Your task to perform on an android device: change your default location settings in chrome Image 0: 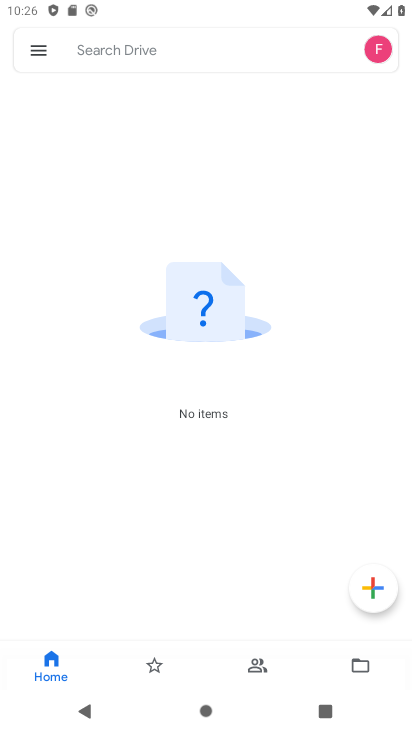
Step 0: press home button
Your task to perform on an android device: change your default location settings in chrome Image 1: 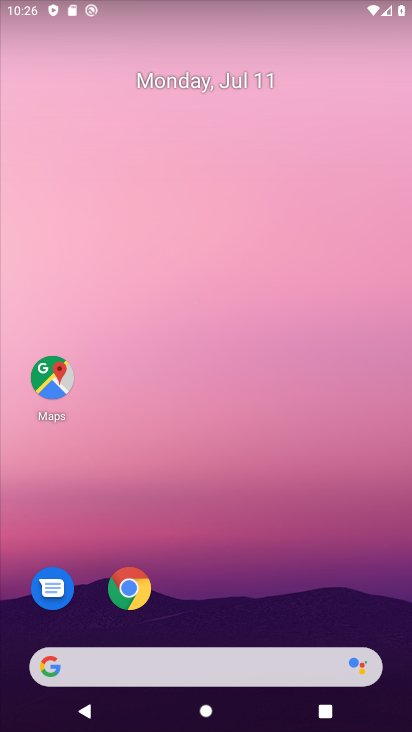
Step 1: click (118, 590)
Your task to perform on an android device: change your default location settings in chrome Image 2: 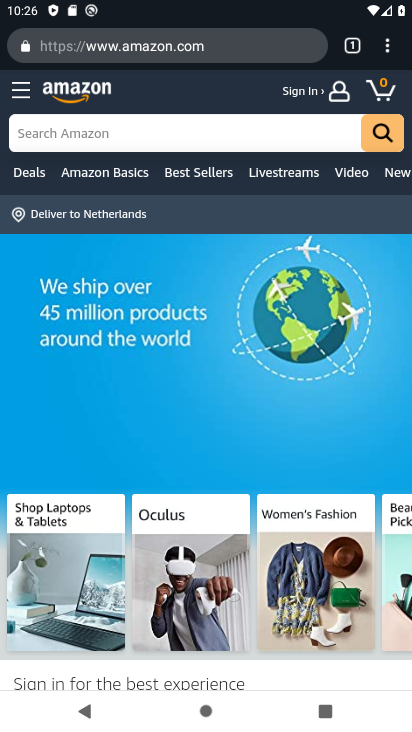
Step 2: click (390, 51)
Your task to perform on an android device: change your default location settings in chrome Image 3: 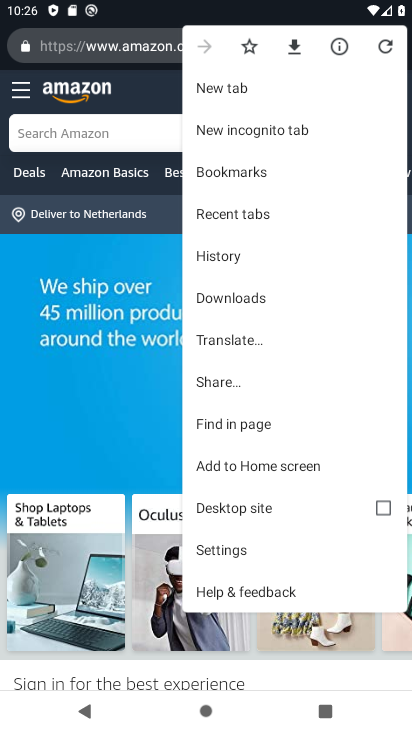
Step 3: click (241, 550)
Your task to perform on an android device: change your default location settings in chrome Image 4: 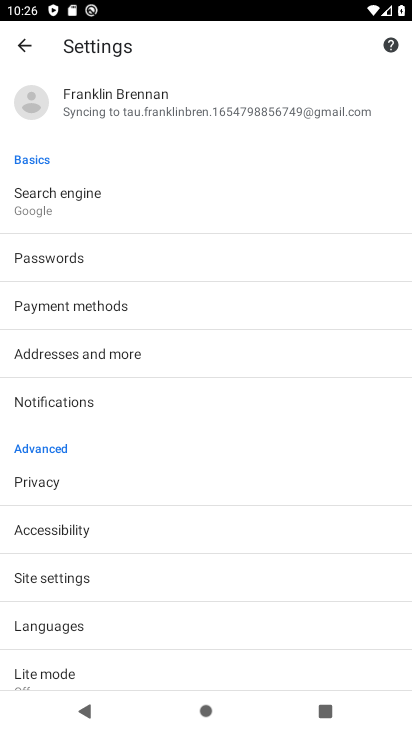
Step 4: click (72, 575)
Your task to perform on an android device: change your default location settings in chrome Image 5: 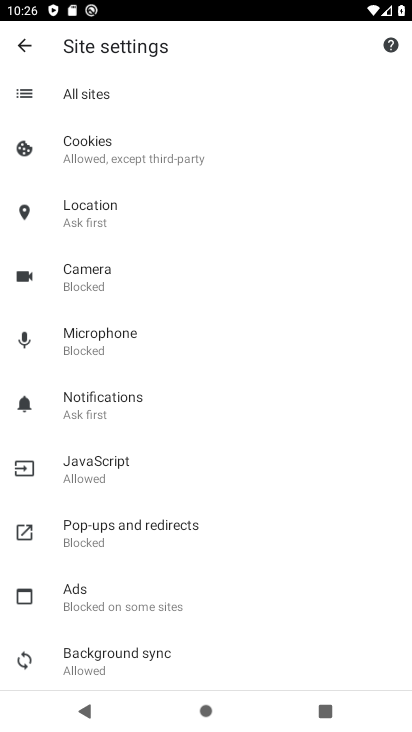
Step 5: click (93, 210)
Your task to perform on an android device: change your default location settings in chrome Image 6: 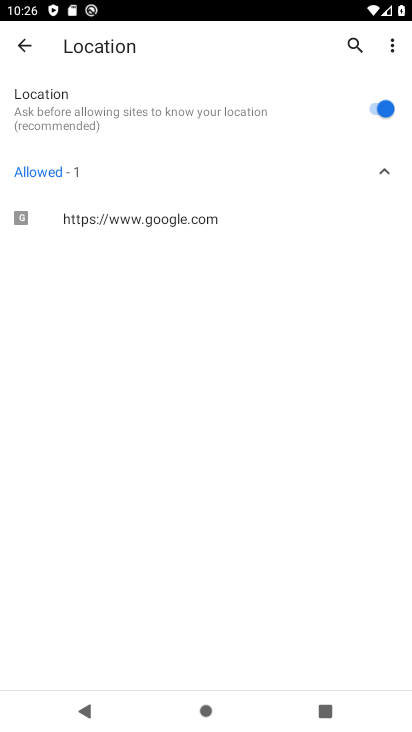
Step 6: click (379, 108)
Your task to perform on an android device: change your default location settings in chrome Image 7: 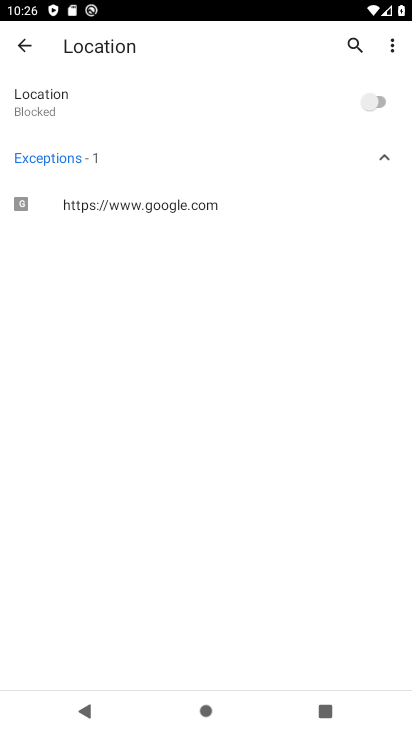
Step 7: task complete